Your task to perform on an android device: turn off airplane mode Image 0: 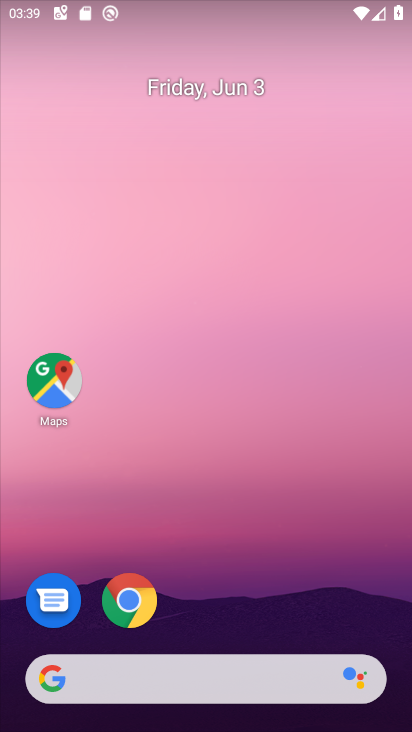
Step 0: drag from (221, 616) to (231, 188)
Your task to perform on an android device: turn off airplane mode Image 1: 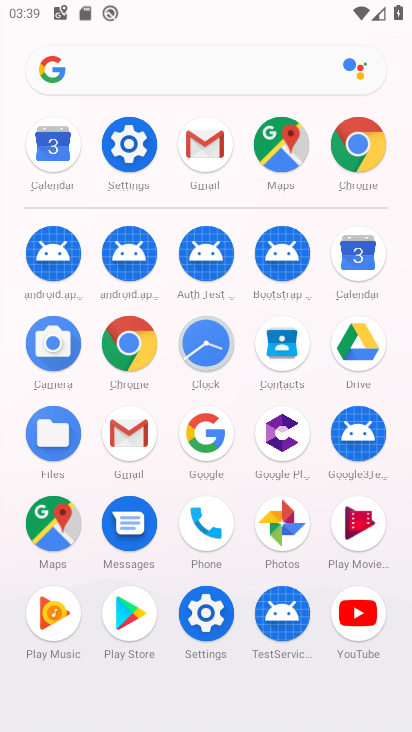
Step 1: click (139, 139)
Your task to perform on an android device: turn off airplane mode Image 2: 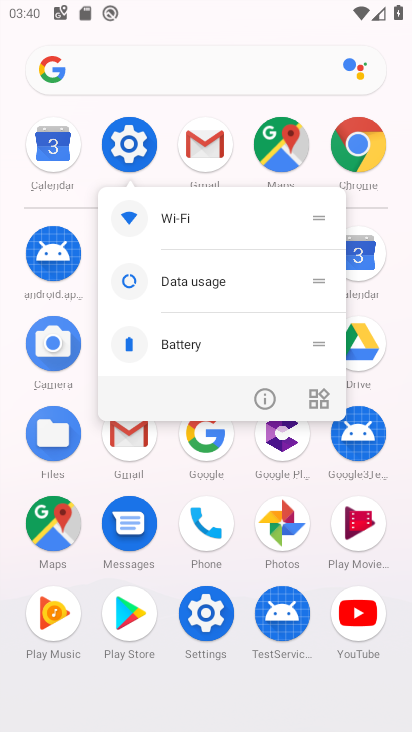
Step 2: click (128, 146)
Your task to perform on an android device: turn off airplane mode Image 3: 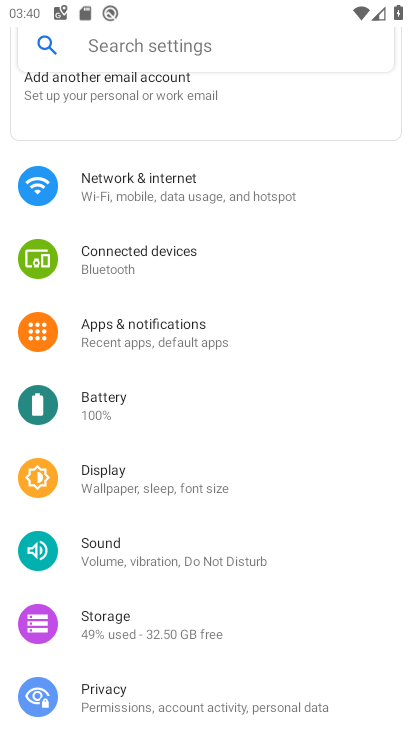
Step 3: click (124, 180)
Your task to perform on an android device: turn off airplane mode Image 4: 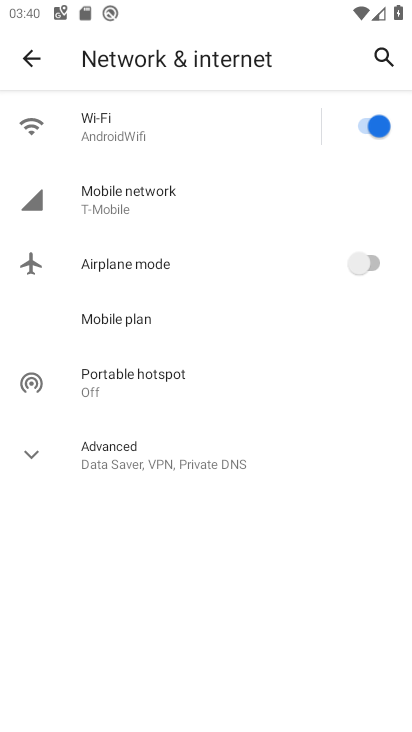
Step 4: task complete